Your task to perform on an android device: choose inbox layout in the gmail app Image 0: 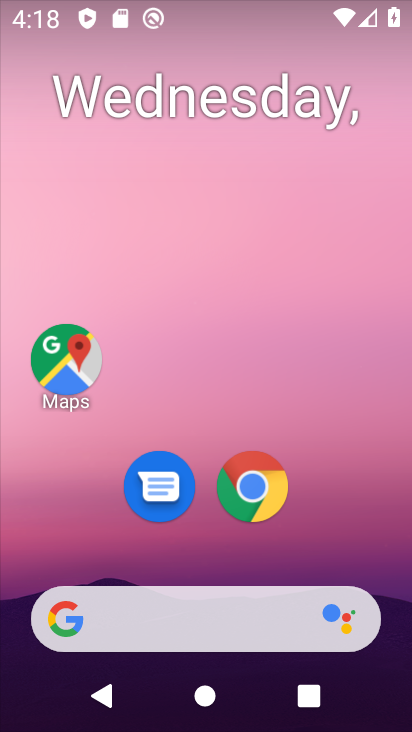
Step 0: drag from (335, 511) to (293, 6)
Your task to perform on an android device: choose inbox layout in the gmail app Image 1: 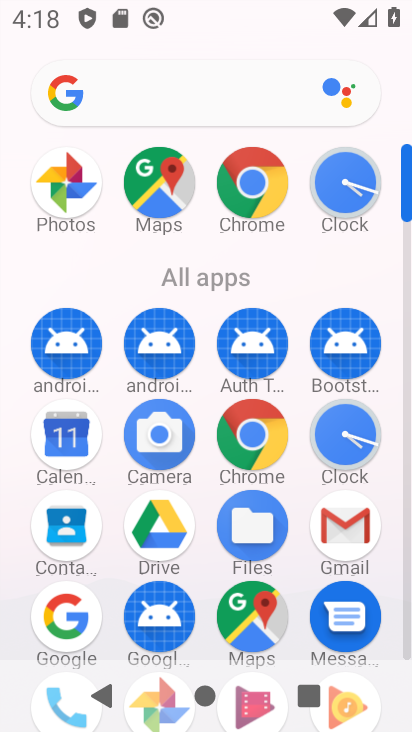
Step 1: drag from (196, 514) to (206, 365)
Your task to perform on an android device: choose inbox layout in the gmail app Image 2: 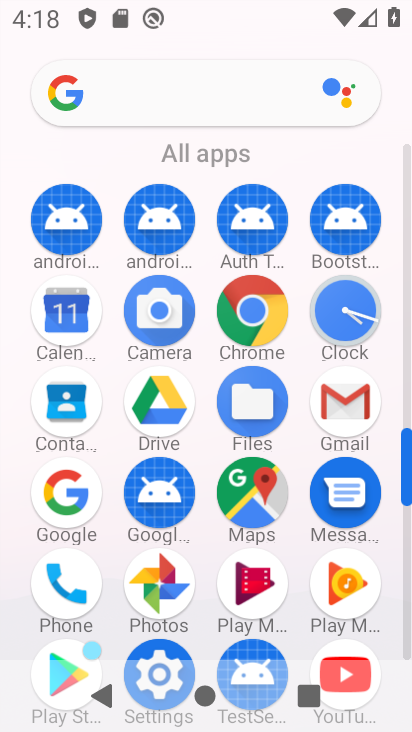
Step 2: click (348, 404)
Your task to perform on an android device: choose inbox layout in the gmail app Image 3: 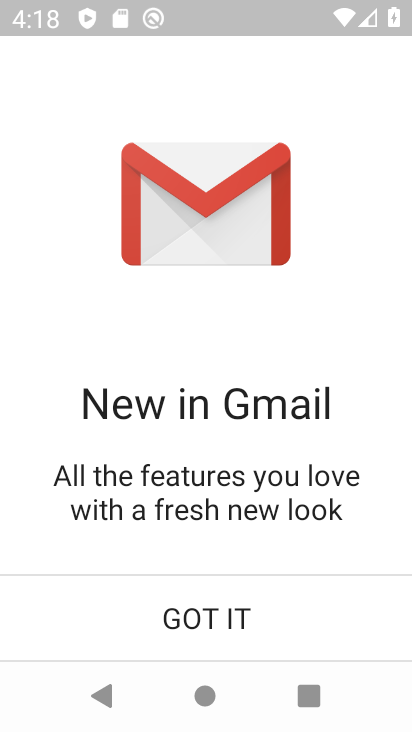
Step 3: click (204, 622)
Your task to perform on an android device: choose inbox layout in the gmail app Image 4: 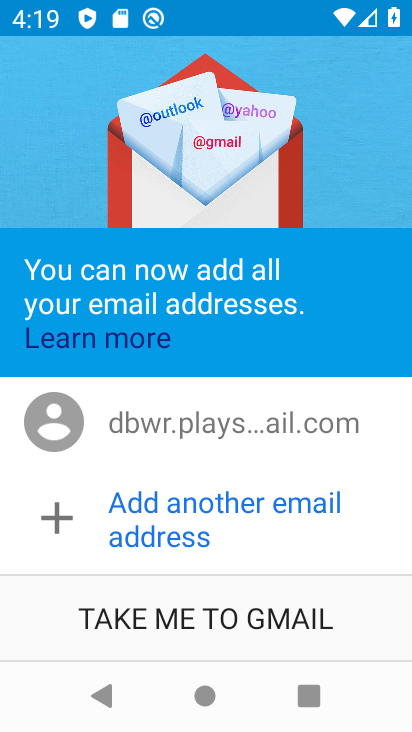
Step 4: click (204, 622)
Your task to perform on an android device: choose inbox layout in the gmail app Image 5: 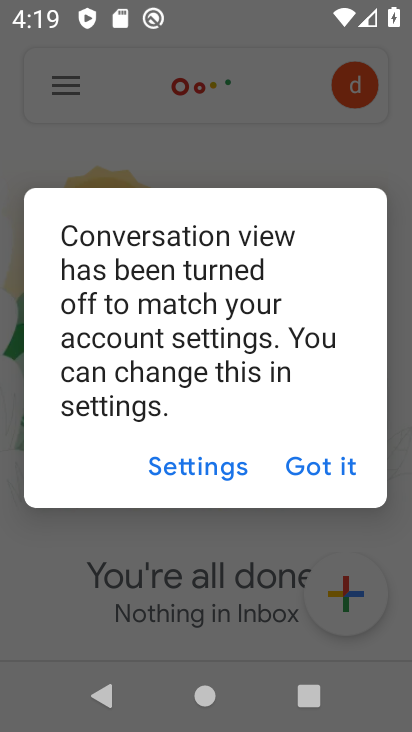
Step 5: click (333, 471)
Your task to perform on an android device: choose inbox layout in the gmail app Image 6: 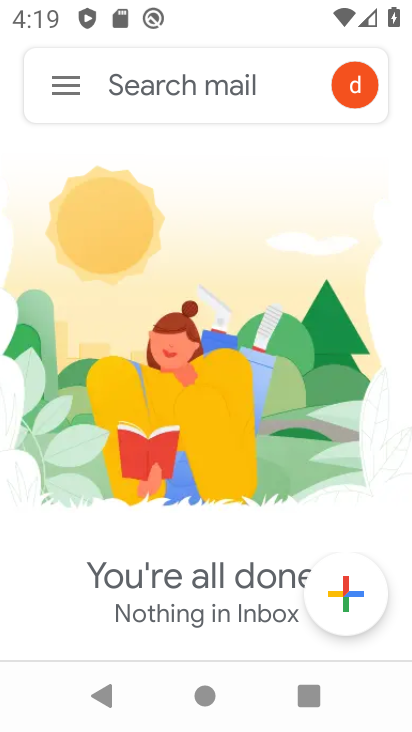
Step 6: click (72, 87)
Your task to perform on an android device: choose inbox layout in the gmail app Image 7: 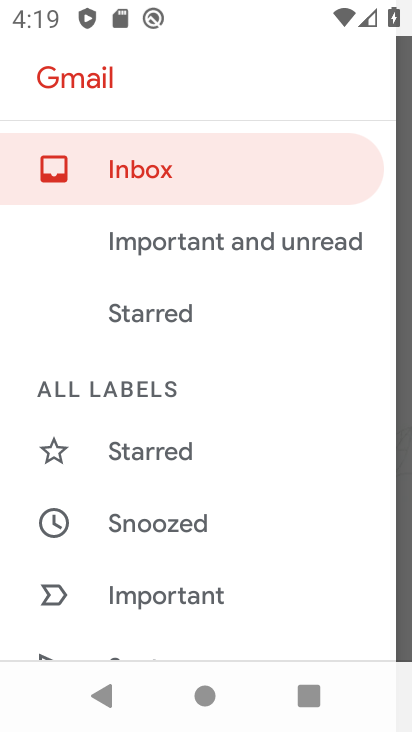
Step 7: drag from (237, 548) to (262, 382)
Your task to perform on an android device: choose inbox layout in the gmail app Image 8: 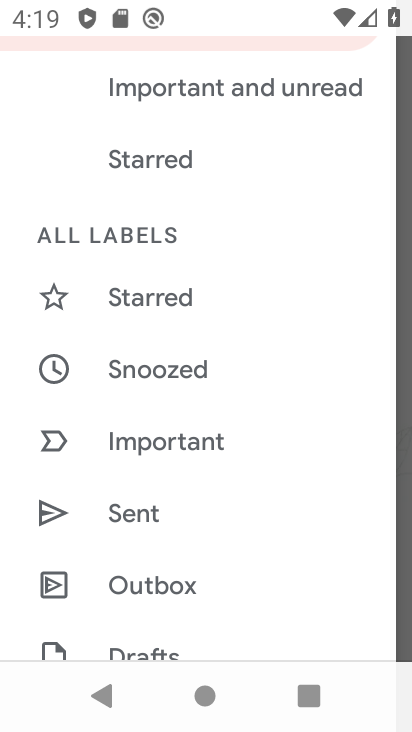
Step 8: drag from (223, 543) to (282, 414)
Your task to perform on an android device: choose inbox layout in the gmail app Image 9: 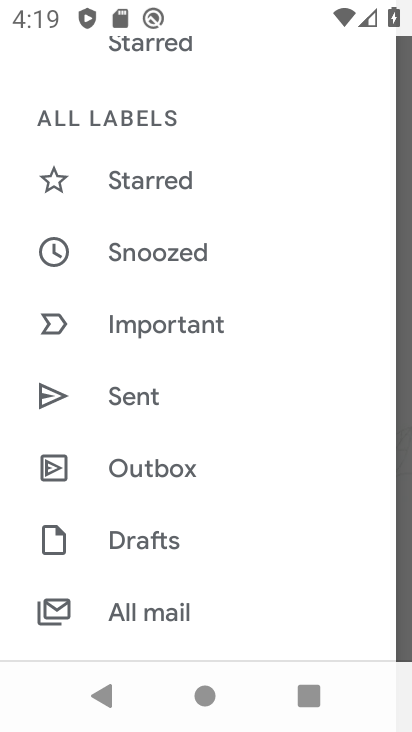
Step 9: drag from (224, 550) to (284, 440)
Your task to perform on an android device: choose inbox layout in the gmail app Image 10: 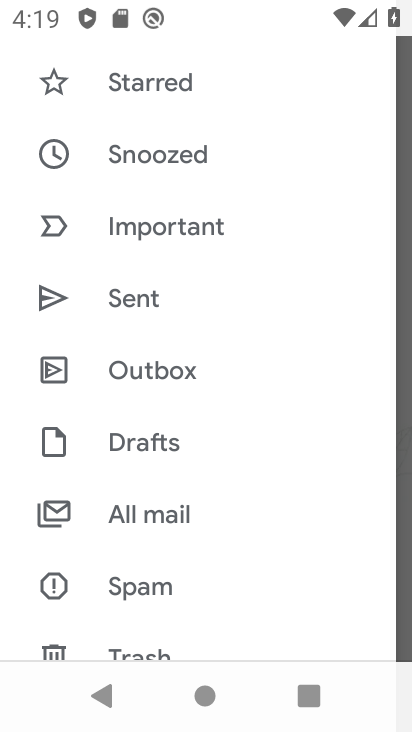
Step 10: drag from (234, 578) to (279, 459)
Your task to perform on an android device: choose inbox layout in the gmail app Image 11: 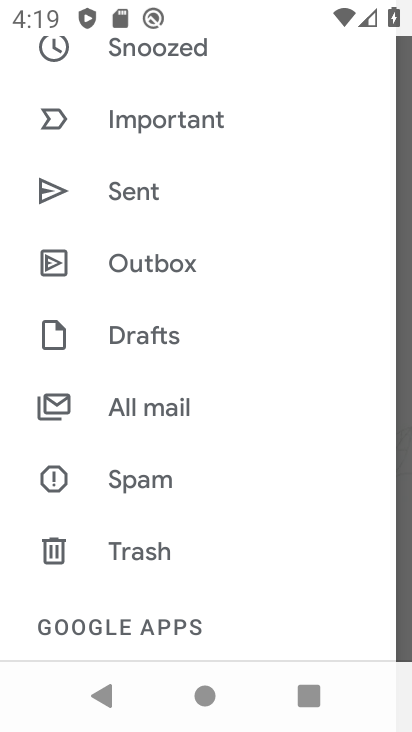
Step 11: drag from (222, 605) to (270, 482)
Your task to perform on an android device: choose inbox layout in the gmail app Image 12: 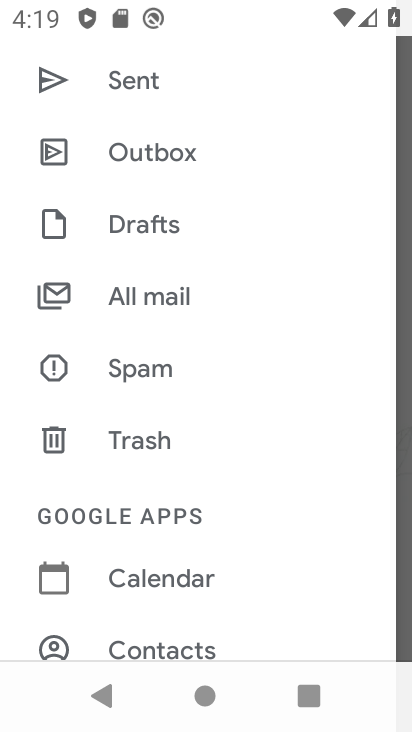
Step 12: drag from (236, 600) to (277, 478)
Your task to perform on an android device: choose inbox layout in the gmail app Image 13: 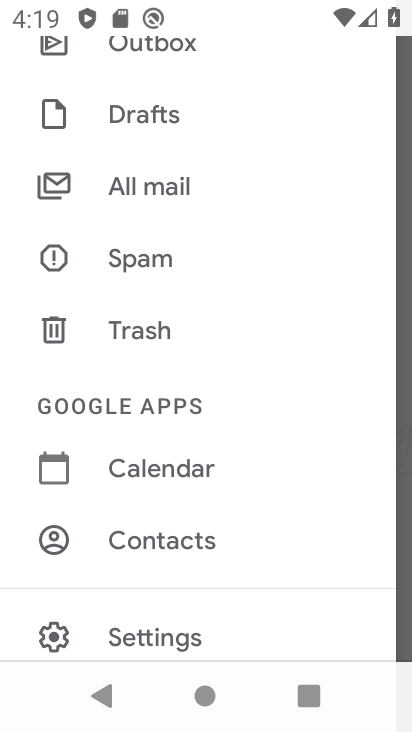
Step 13: drag from (227, 609) to (256, 487)
Your task to perform on an android device: choose inbox layout in the gmail app Image 14: 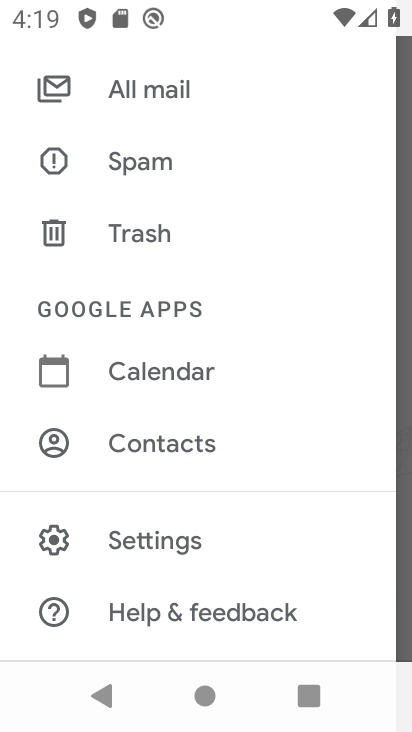
Step 14: click (155, 538)
Your task to perform on an android device: choose inbox layout in the gmail app Image 15: 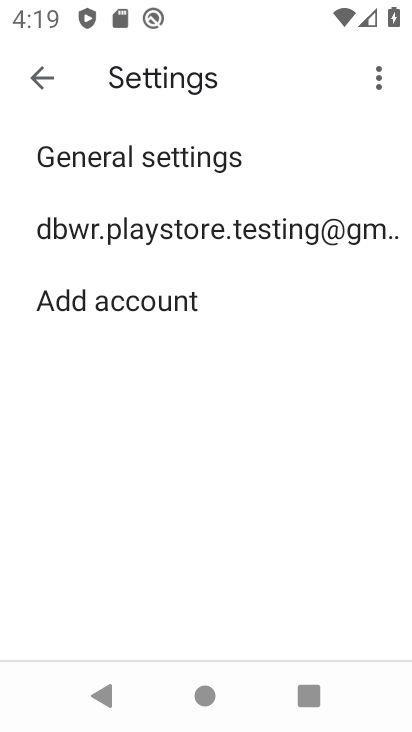
Step 15: click (179, 226)
Your task to perform on an android device: choose inbox layout in the gmail app Image 16: 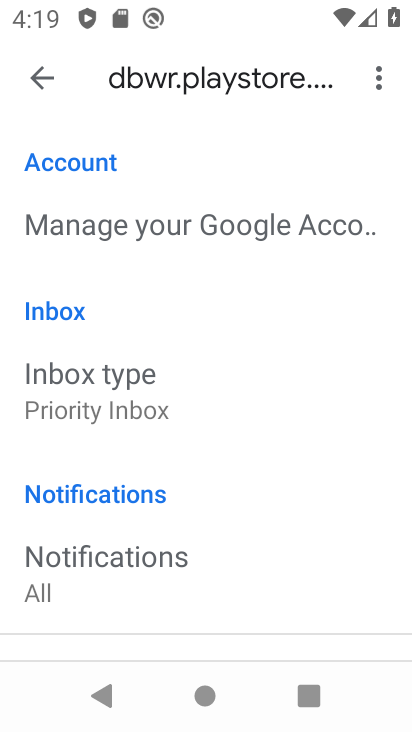
Step 16: drag from (193, 510) to (216, 426)
Your task to perform on an android device: choose inbox layout in the gmail app Image 17: 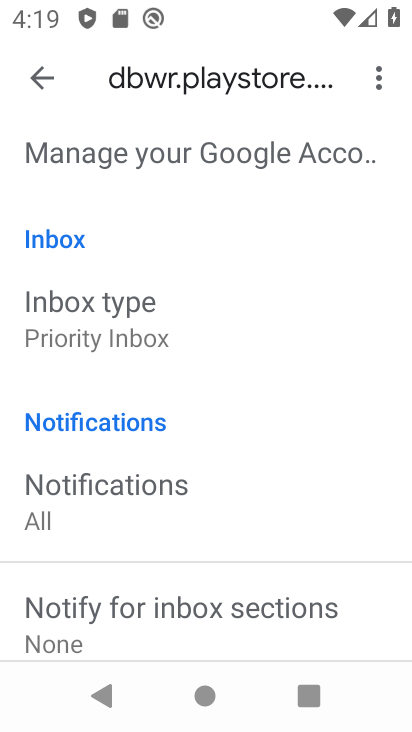
Step 17: click (138, 333)
Your task to perform on an android device: choose inbox layout in the gmail app Image 18: 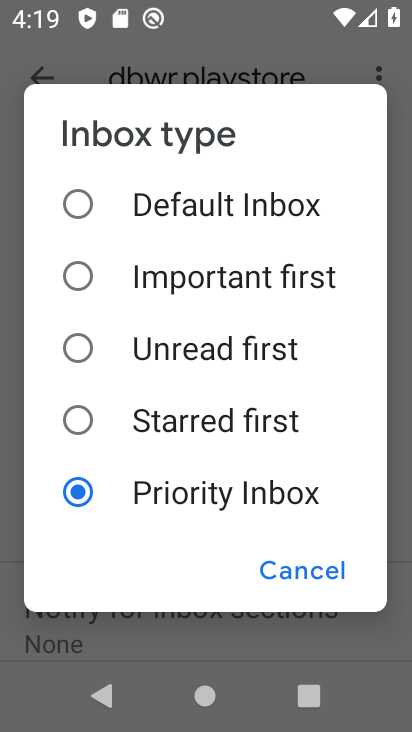
Step 18: click (84, 344)
Your task to perform on an android device: choose inbox layout in the gmail app Image 19: 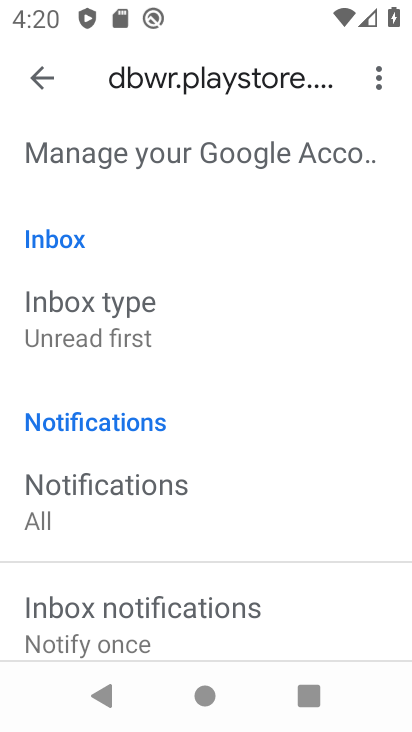
Step 19: task complete